Your task to perform on an android device: read, delete, or share a saved page in the chrome app Image 0: 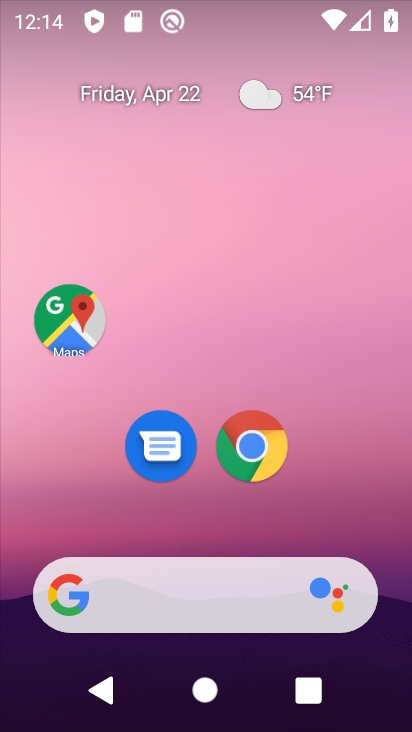
Step 0: click (259, 440)
Your task to perform on an android device: read, delete, or share a saved page in the chrome app Image 1: 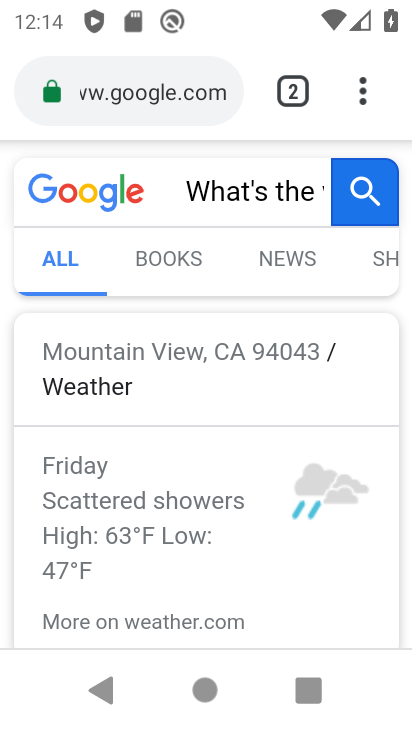
Step 1: drag from (364, 86) to (152, 344)
Your task to perform on an android device: read, delete, or share a saved page in the chrome app Image 2: 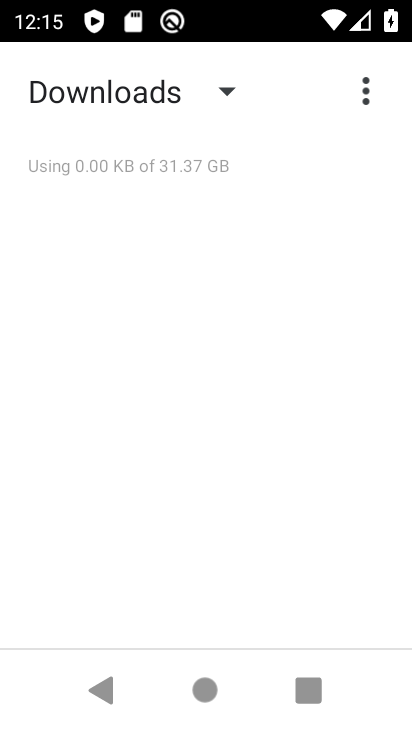
Step 2: click (231, 71)
Your task to perform on an android device: read, delete, or share a saved page in the chrome app Image 3: 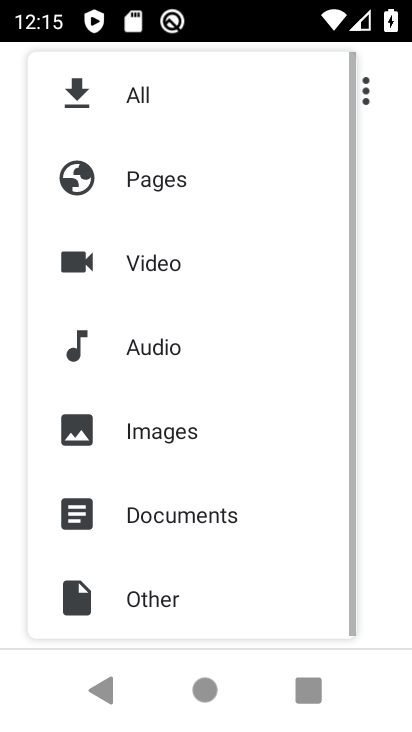
Step 3: click (220, 185)
Your task to perform on an android device: read, delete, or share a saved page in the chrome app Image 4: 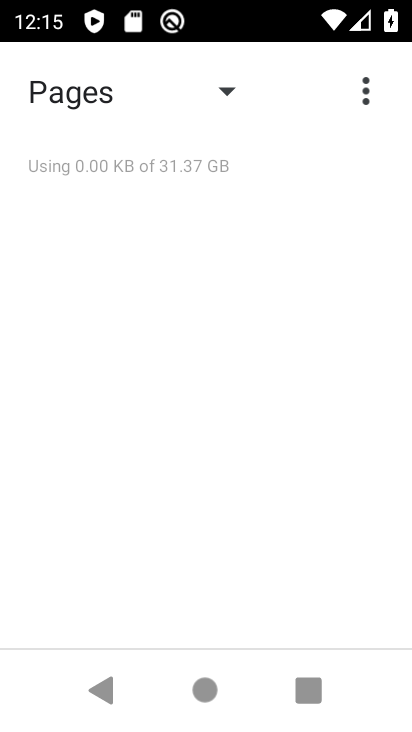
Step 4: task complete